Your task to perform on an android device: see sites visited before in the chrome app Image 0: 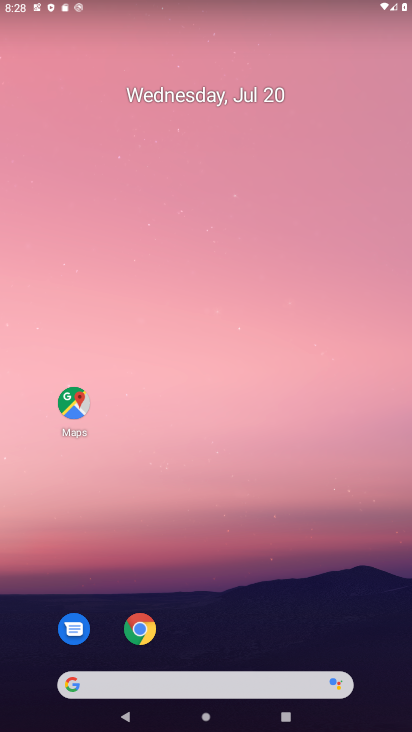
Step 0: press back button
Your task to perform on an android device: see sites visited before in the chrome app Image 1: 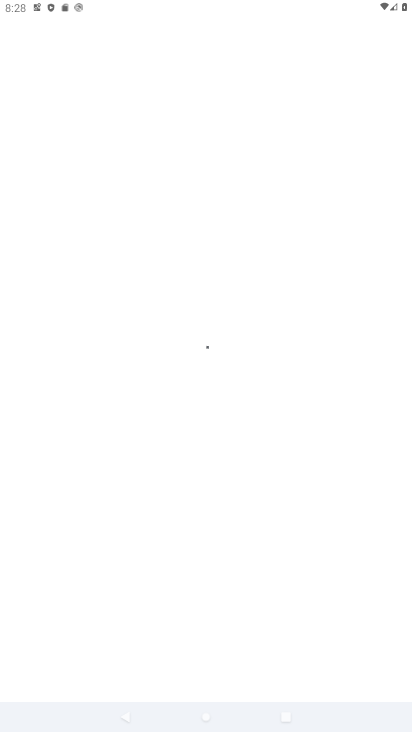
Step 1: drag from (187, 281) to (169, 201)
Your task to perform on an android device: see sites visited before in the chrome app Image 2: 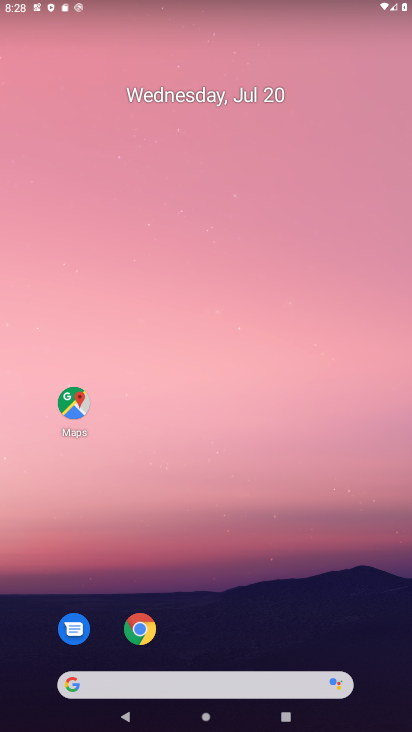
Step 2: drag from (207, 658) to (162, 187)
Your task to perform on an android device: see sites visited before in the chrome app Image 3: 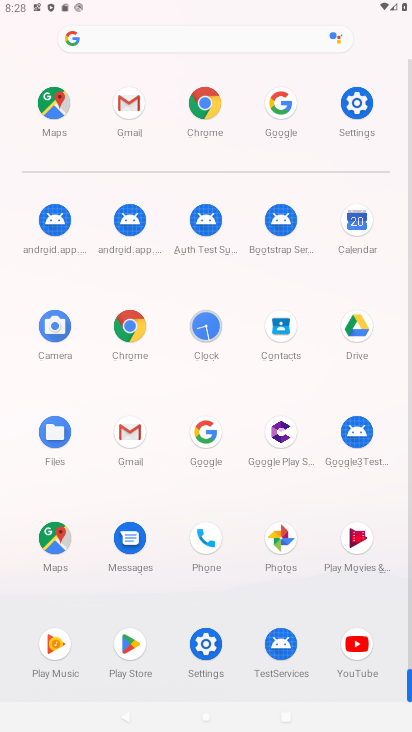
Step 3: click (212, 101)
Your task to perform on an android device: see sites visited before in the chrome app Image 4: 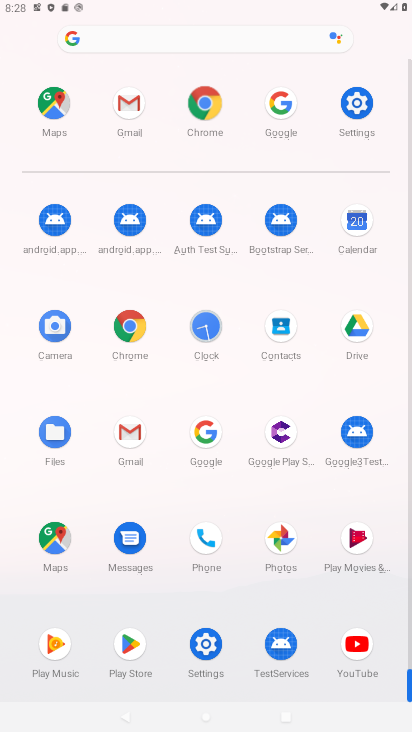
Step 4: click (212, 100)
Your task to perform on an android device: see sites visited before in the chrome app Image 5: 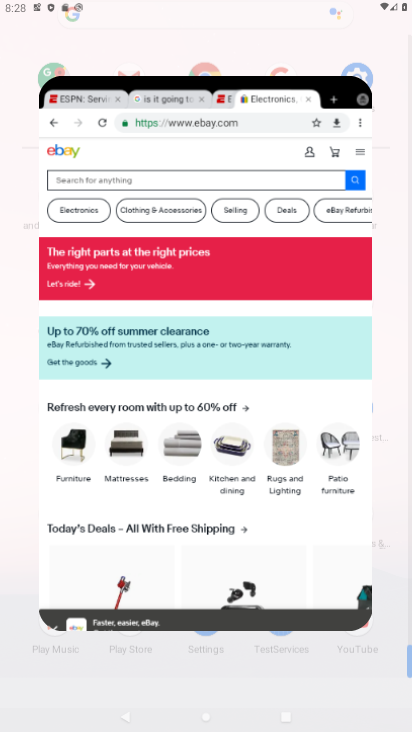
Step 5: click (211, 96)
Your task to perform on an android device: see sites visited before in the chrome app Image 6: 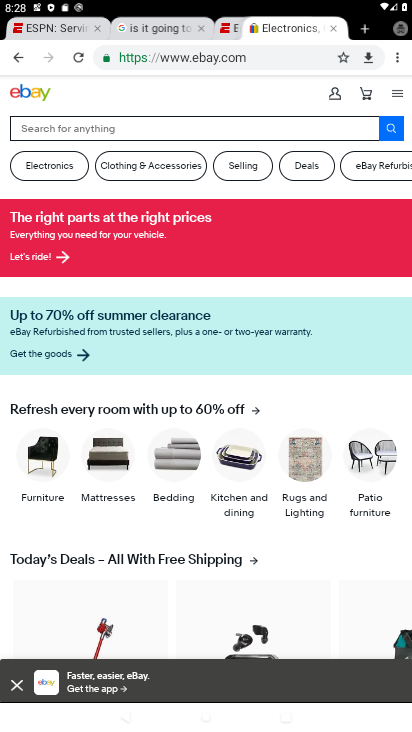
Step 6: drag from (394, 58) to (294, 148)
Your task to perform on an android device: see sites visited before in the chrome app Image 7: 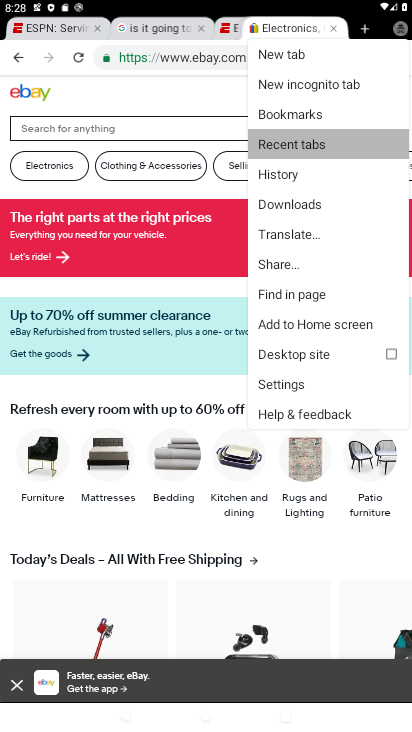
Step 7: click (295, 148)
Your task to perform on an android device: see sites visited before in the chrome app Image 8: 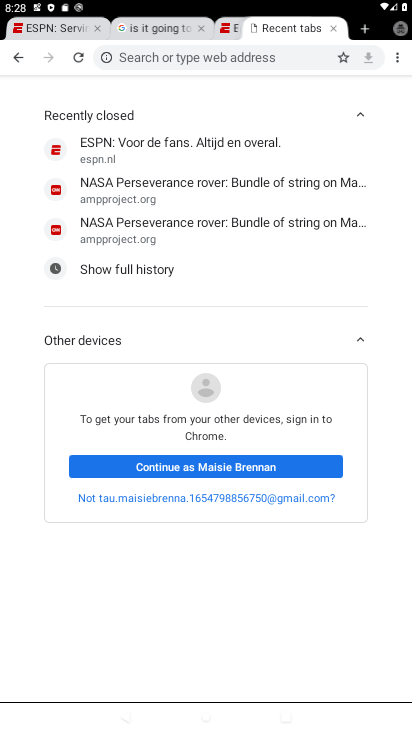
Step 8: task complete